Your task to perform on an android device: Open Chrome and go to the settings page Image 0: 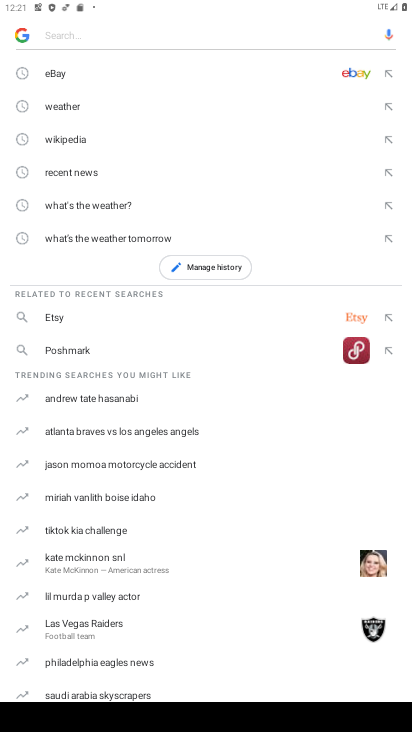
Step 0: press home button
Your task to perform on an android device: Open Chrome and go to the settings page Image 1: 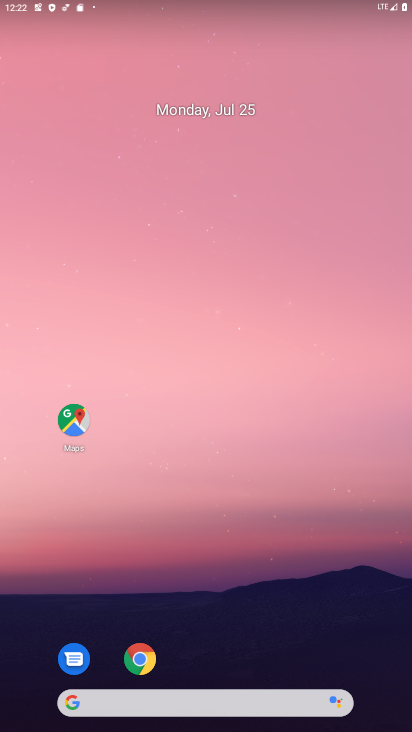
Step 1: drag from (40, 655) to (340, 126)
Your task to perform on an android device: Open Chrome and go to the settings page Image 2: 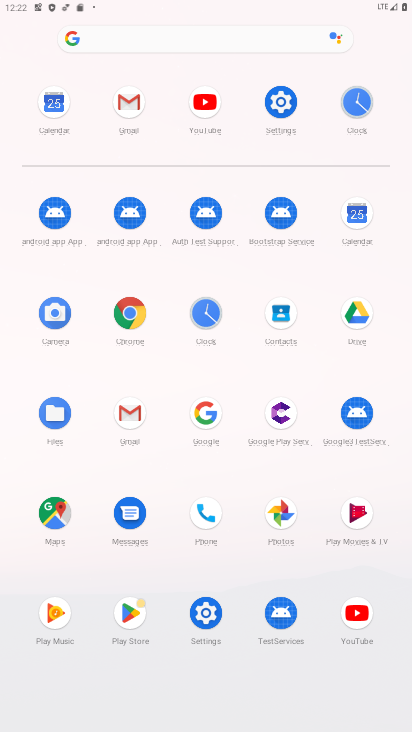
Step 2: click (359, 217)
Your task to perform on an android device: Open Chrome and go to the settings page Image 3: 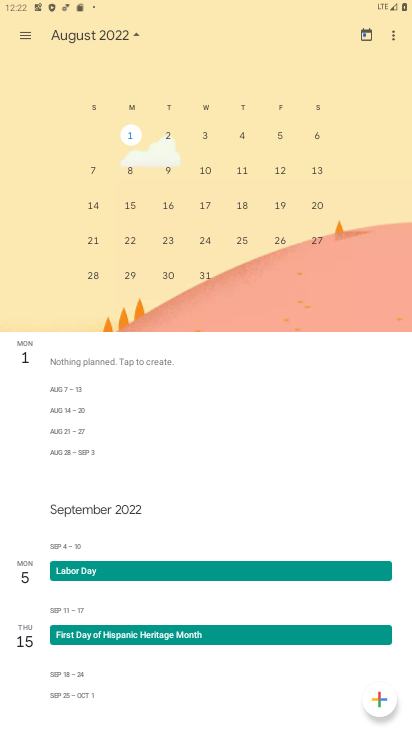
Step 3: press home button
Your task to perform on an android device: Open Chrome and go to the settings page Image 4: 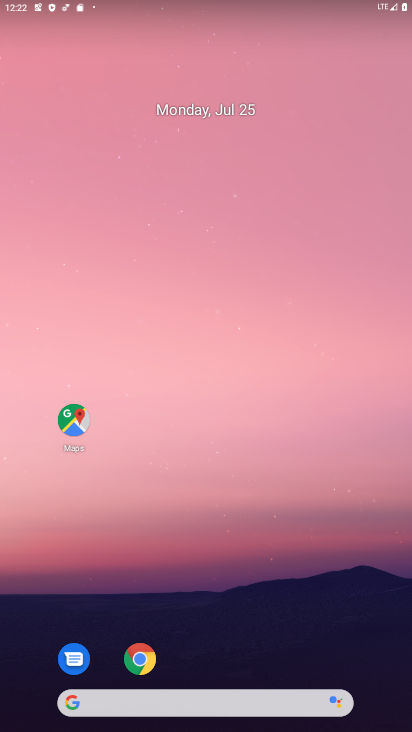
Step 4: click (132, 658)
Your task to perform on an android device: Open Chrome and go to the settings page Image 5: 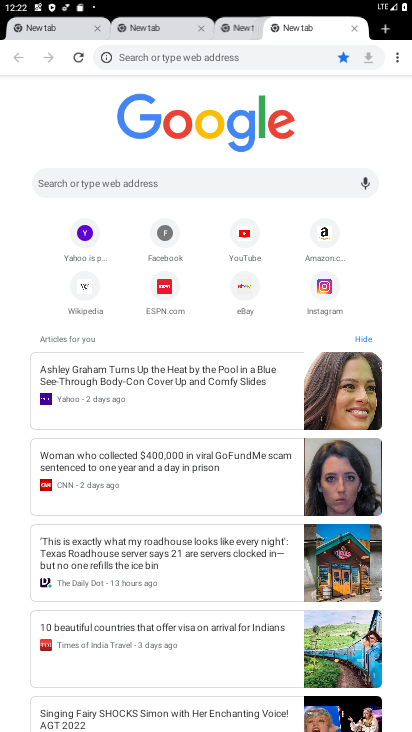
Step 5: click (393, 50)
Your task to perform on an android device: Open Chrome and go to the settings page Image 6: 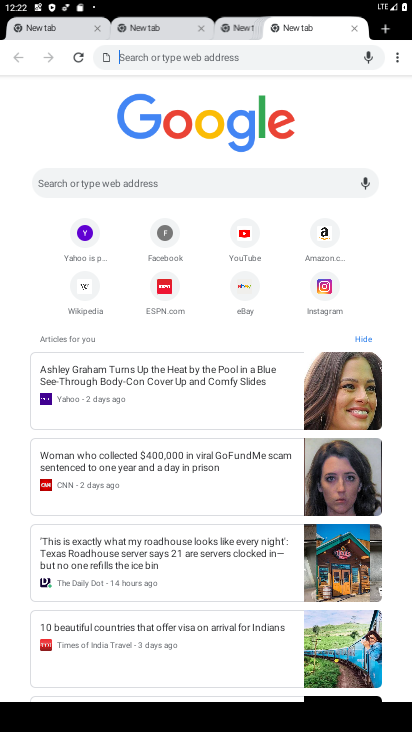
Step 6: click (395, 53)
Your task to perform on an android device: Open Chrome and go to the settings page Image 7: 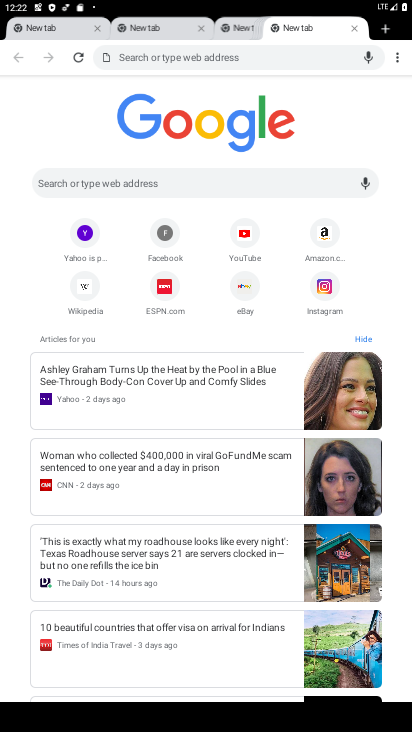
Step 7: click (396, 54)
Your task to perform on an android device: Open Chrome and go to the settings page Image 8: 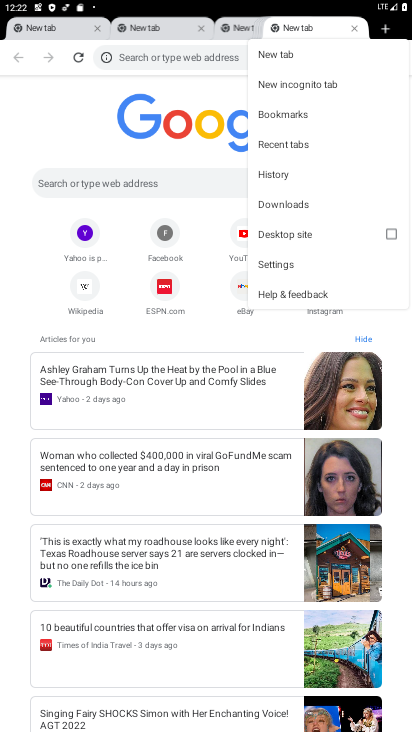
Step 8: click (274, 257)
Your task to perform on an android device: Open Chrome and go to the settings page Image 9: 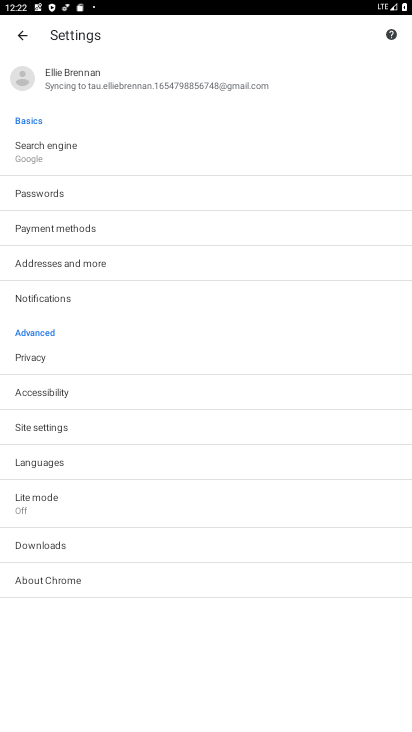
Step 9: task complete